Your task to perform on an android device: Toggle the flashlight Image 0: 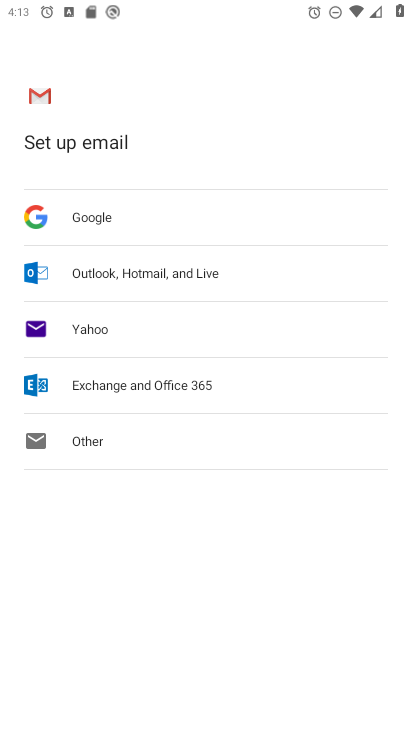
Step 0: press home button
Your task to perform on an android device: Toggle the flashlight Image 1: 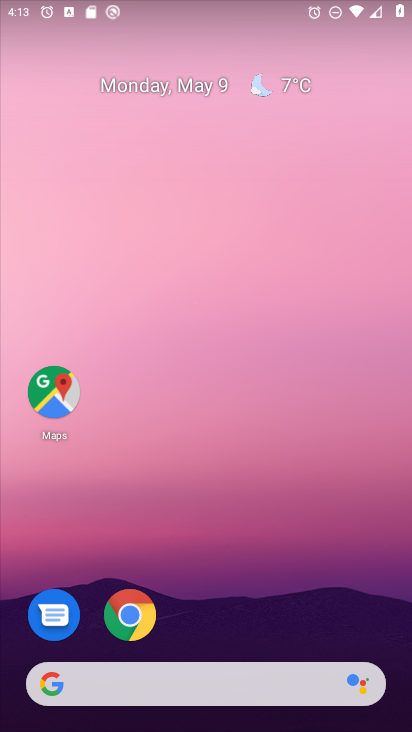
Step 1: drag from (221, 5) to (224, 436)
Your task to perform on an android device: Toggle the flashlight Image 2: 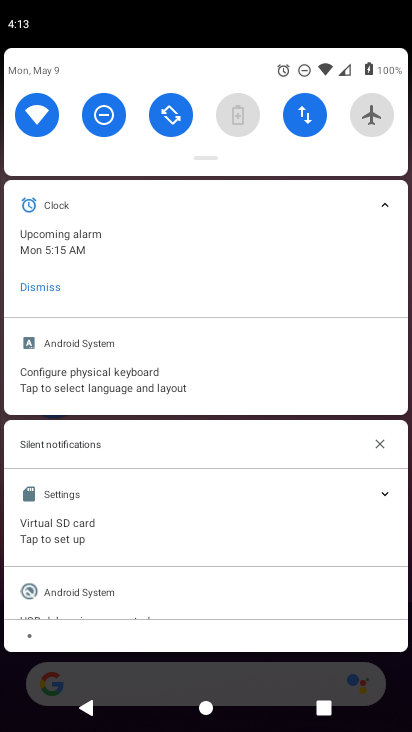
Step 2: drag from (208, 151) to (170, 452)
Your task to perform on an android device: Toggle the flashlight Image 3: 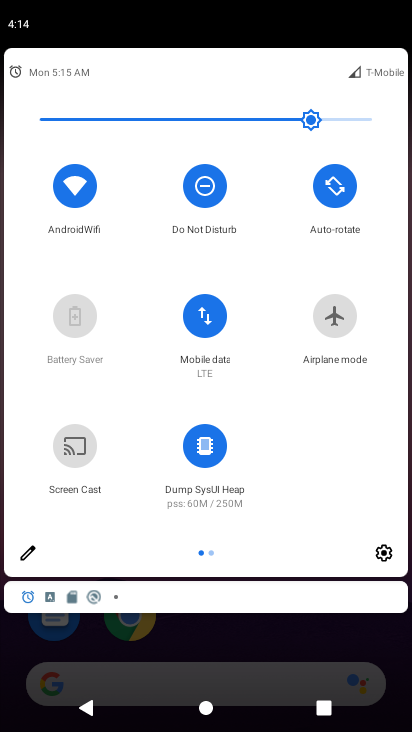
Step 3: click (20, 548)
Your task to perform on an android device: Toggle the flashlight Image 4: 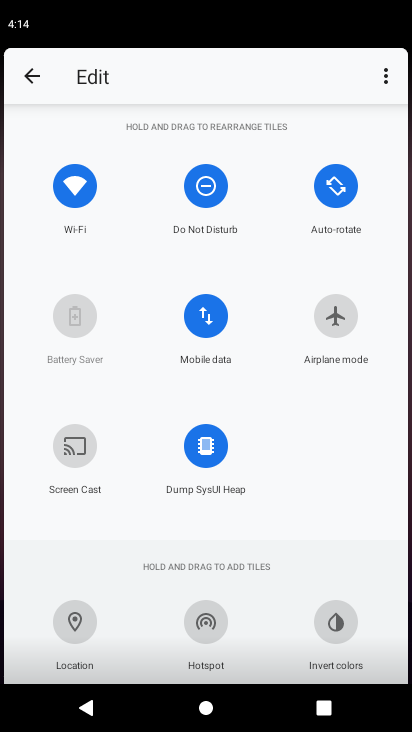
Step 4: task complete